Your task to perform on an android device: turn off location Image 0: 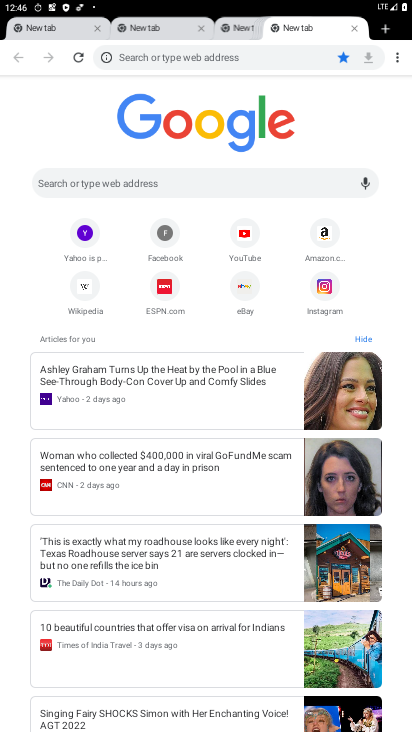
Step 0: press home button
Your task to perform on an android device: turn off location Image 1: 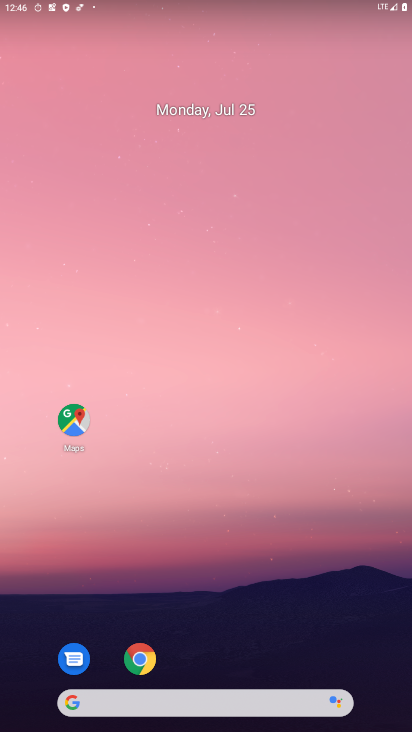
Step 1: drag from (101, 596) to (323, 180)
Your task to perform on an android device: turn off location Image 2: 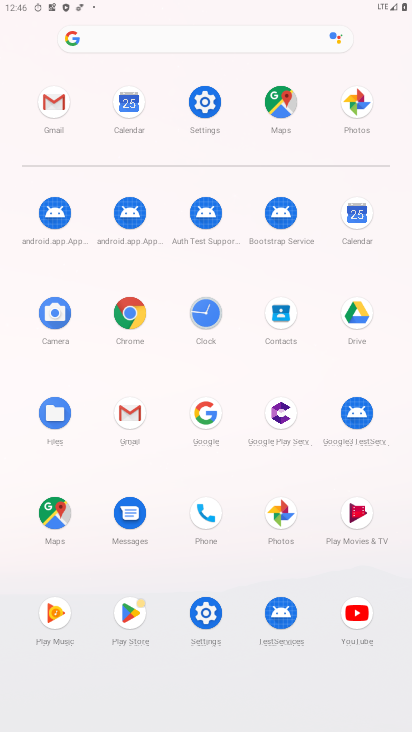
Step 2: click (206, 608)
Your task to perform on an android device: turn off location Image 3: 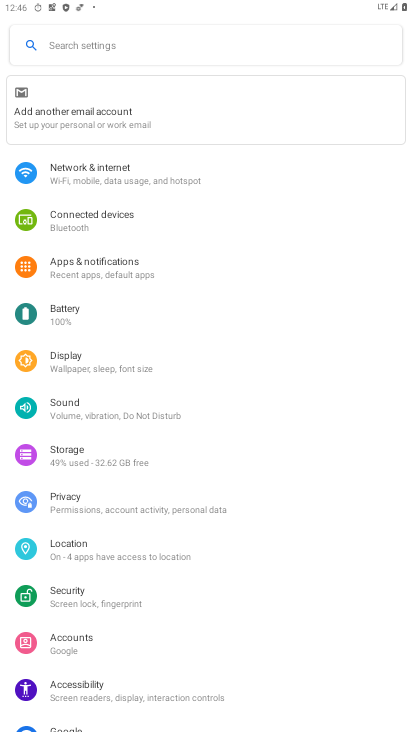
Step 3: click (99, 541)
Your task to perform on an android device: turn off location Image 4: 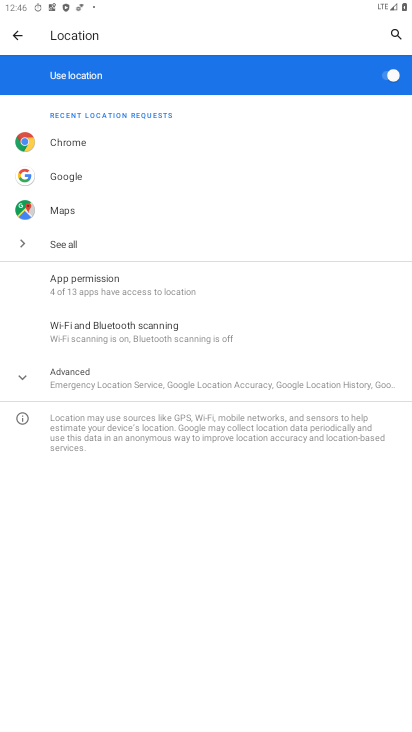
Step 4: click (110, 380)
Your task to perform on an android device: turn off location Image 5: 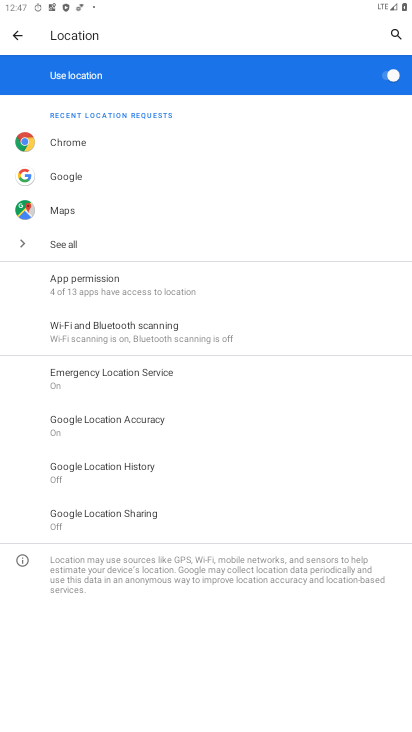
Step 5: click (383, 75)
Your task to perform on an android device: turn off location Image 6: 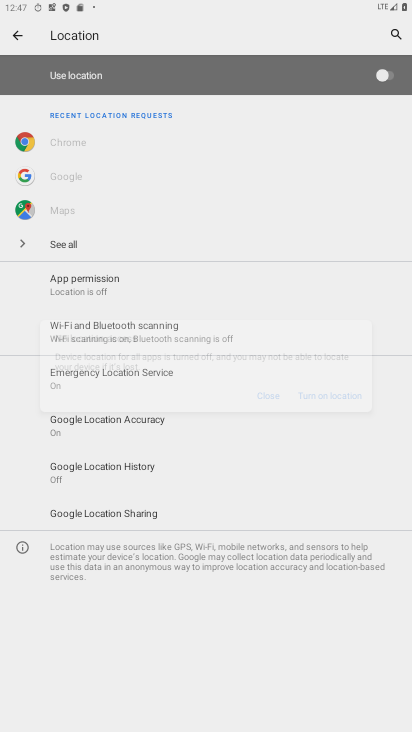
Step 6: task complete